Your task to perform on an android device: Open Amazon Image 0: 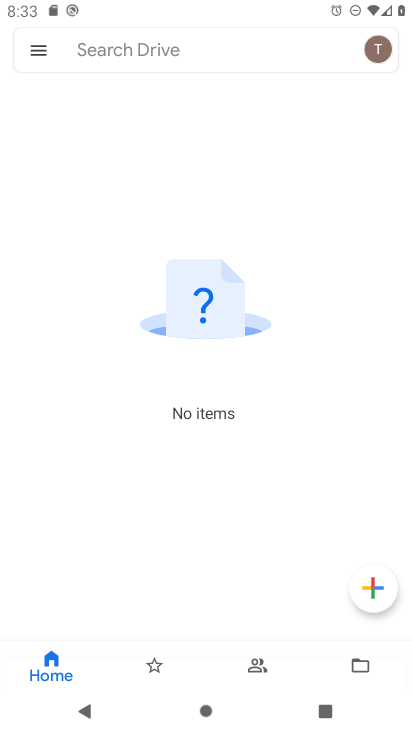
Step 0: press home button
Your task to perform on an android device: Open Amazon Image 1: 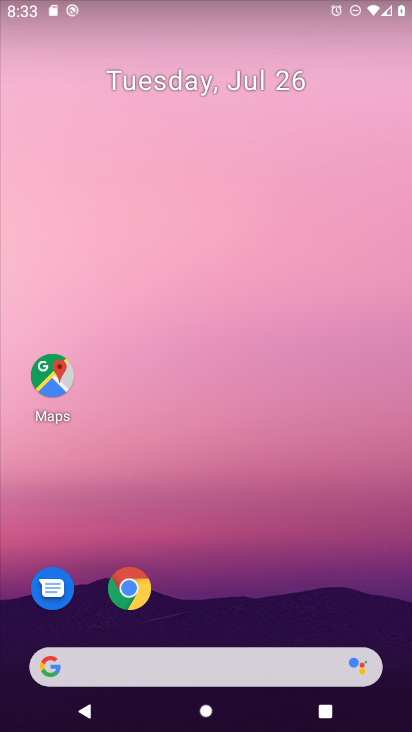
Step 1: drag from (227, 662) to (226, 251)
Your task to perform on an android device: Open Amazon Image 2: 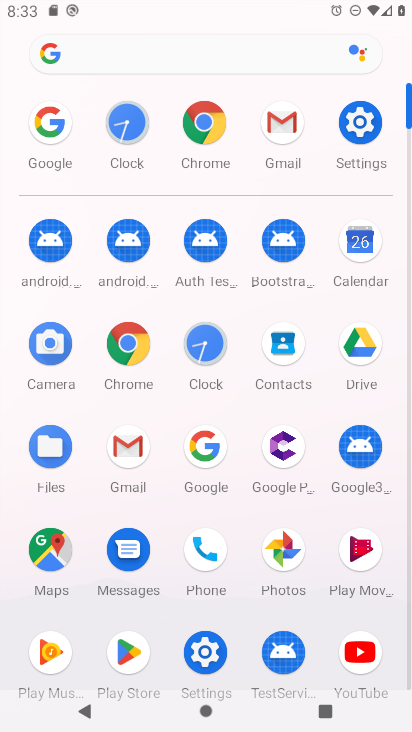
Step 2: click (216, 162)
Your task to perform on an android device: Open Amazon Image 3: 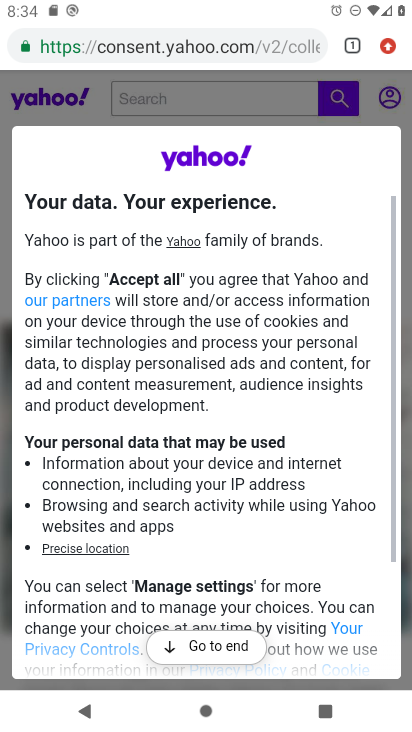
Step 3: click (309, 49)
Your task to perform on an android device: Open Amazon Image 4: 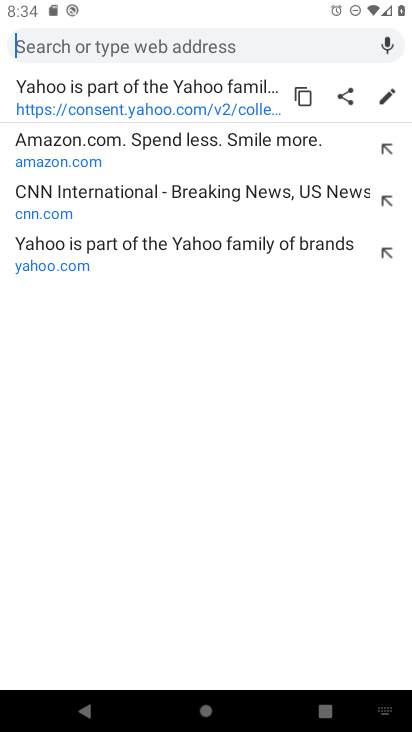
Step 4: type "amazon'"
Your task to perform on an android device: Open Amazon Image 5: 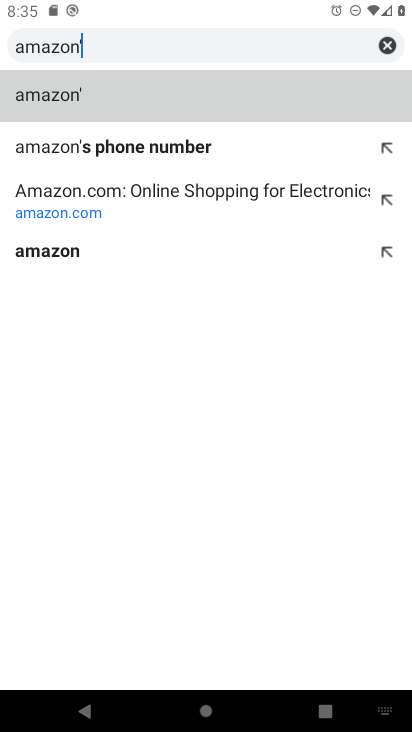
Step 5: click (248, 187)
Your task to perform on an android device: Open Amazon Image 6: 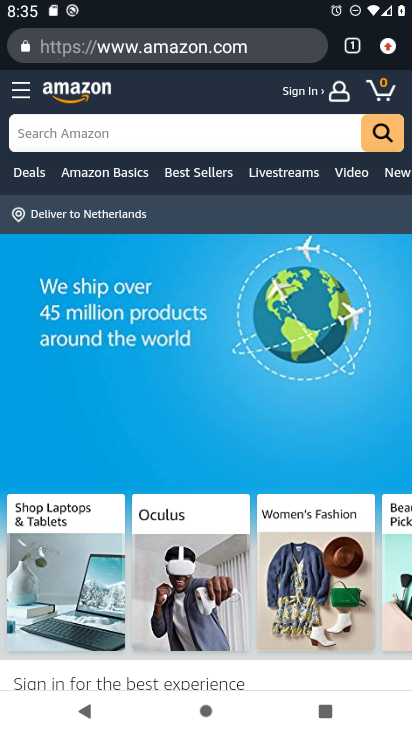
Step 6: task complete